Your task to perform on an android device: What's on my calendar tomorrow? Image 0: 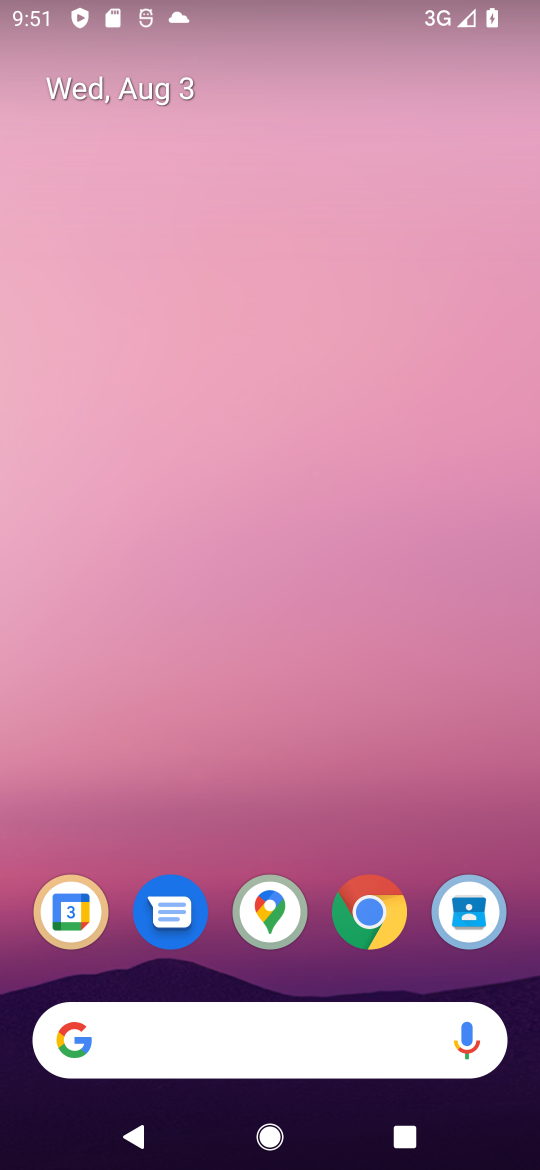
Step 0: drag from (326, 755) to (354, 152)
Your task to perform on an android device: What's on my calendar tomorrow? Image 1: 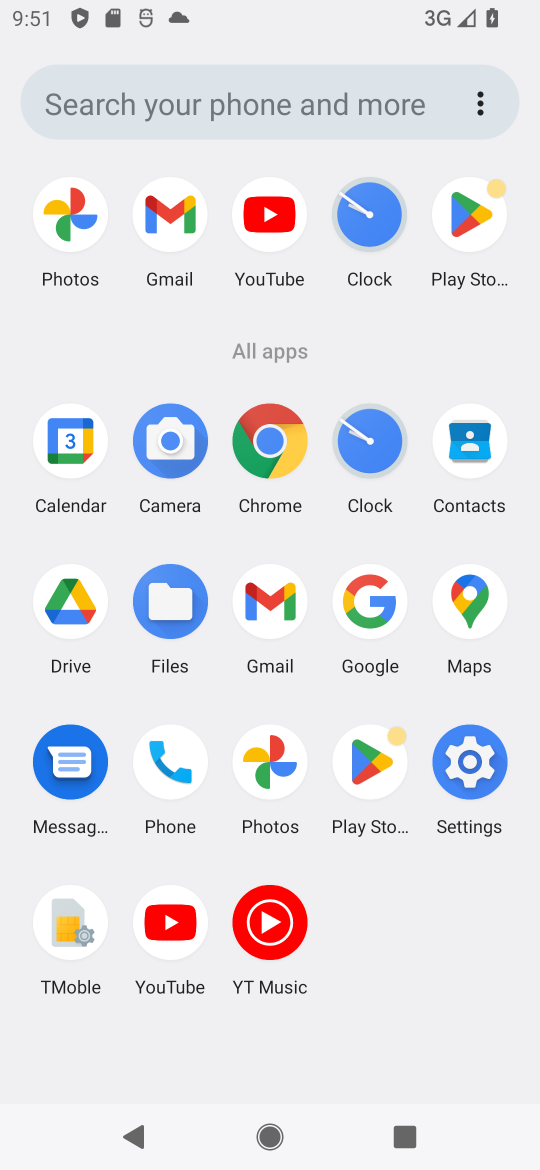
Step 1: click (61, 409)
Your task to perform on an android device: What's on my calendar tomorrow? Image 2: 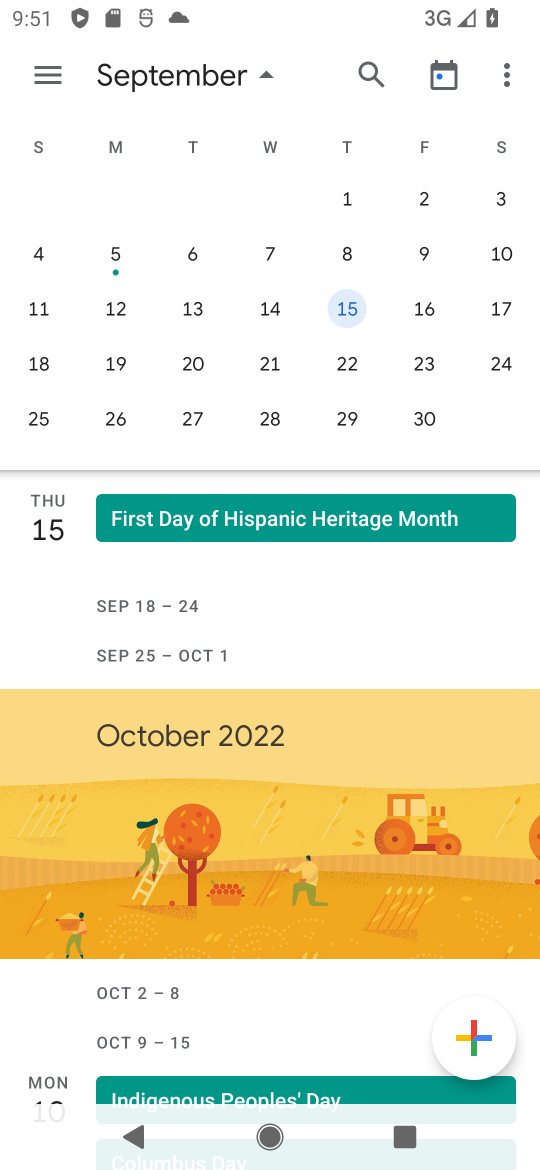
Step 2: click (415, 316)
Your task to perform on an android device: What's on my calendar tomorrow? Image 3: 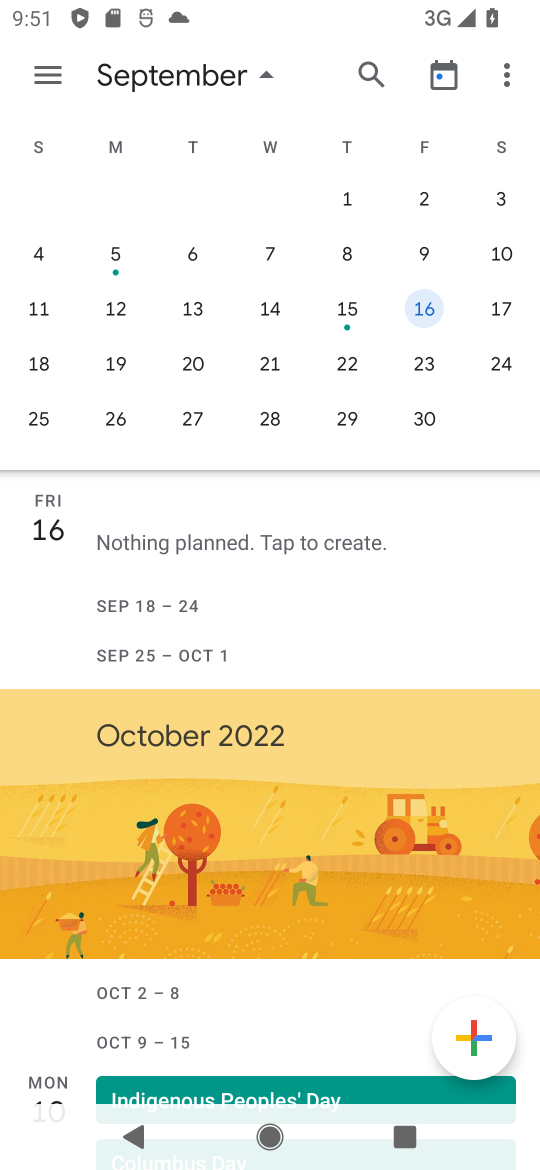
Step 3: task complete